Your task to perform on an android device: delete a single message in the gmail app Image 0: 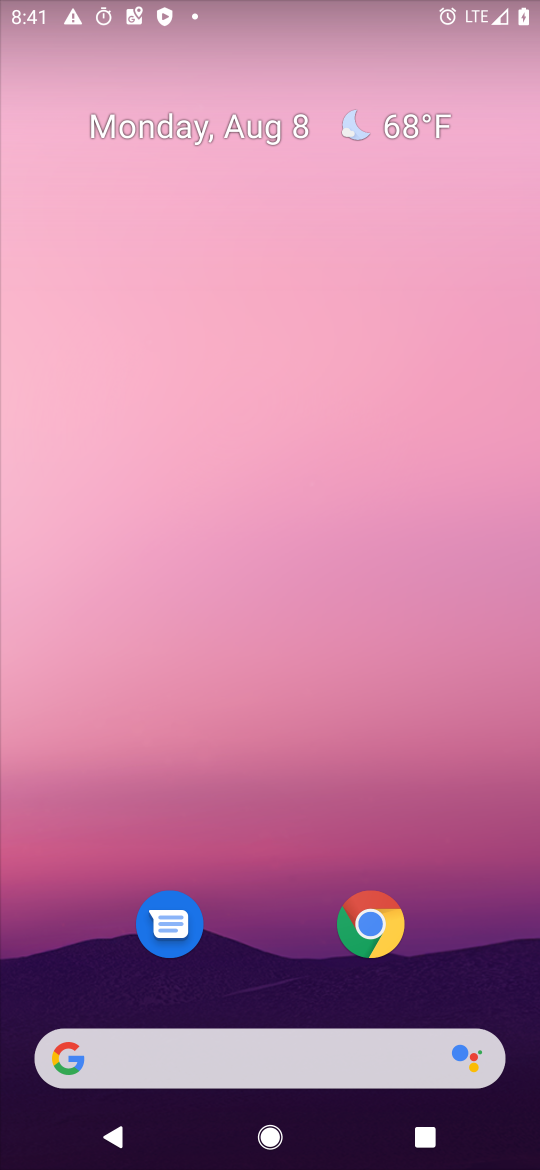
Step 0: drag from (165, 866) to (153, 1168)
Your task to perform on an android device: delete a single message in the gmail app Image 1: 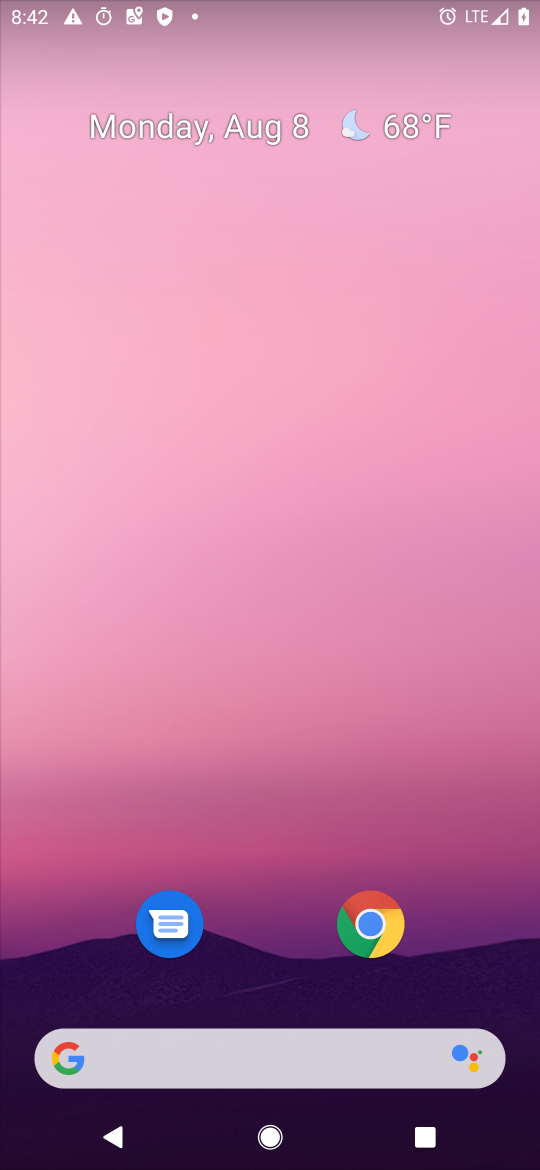
Step 1: drag from (276, 983) to (262, 864)
Your task to perform on an android device: delete a single message in the gmail app Image 2: 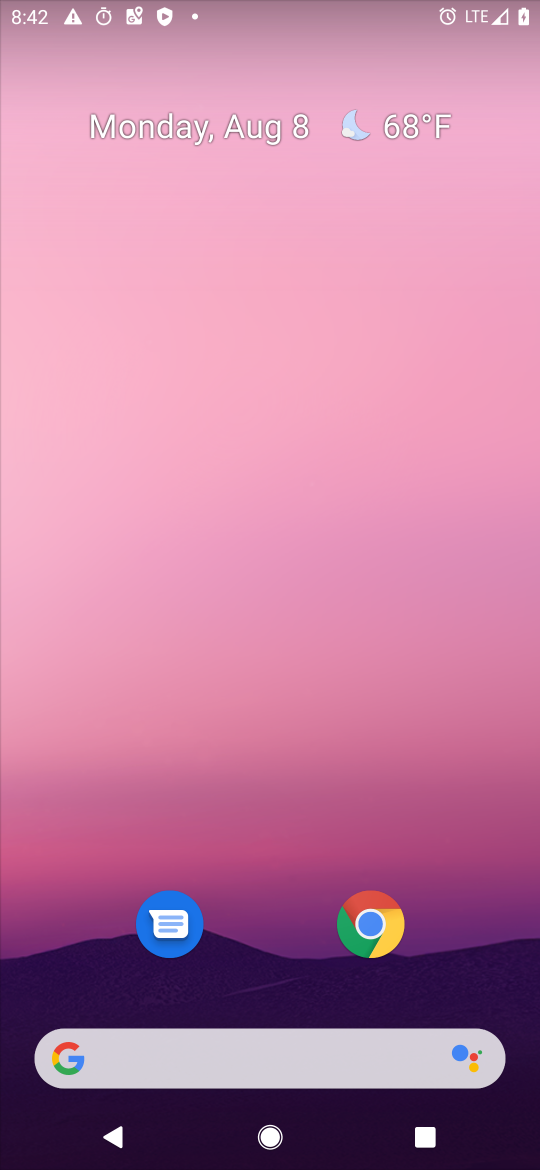
Step 2: drag from (238, 994) to (204, 205)
Your task to perform on an android device: delete a single message in the gmail app Image 3: 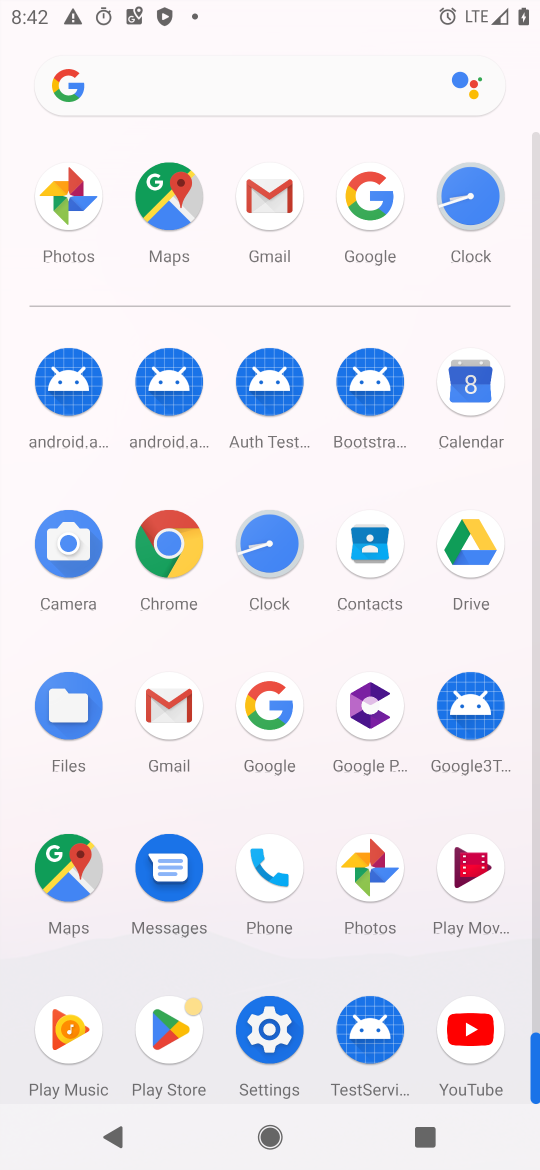
Step 3: click (156, 788)
Your task to perform on an android device: delete a single message in the gmail app Image 4: 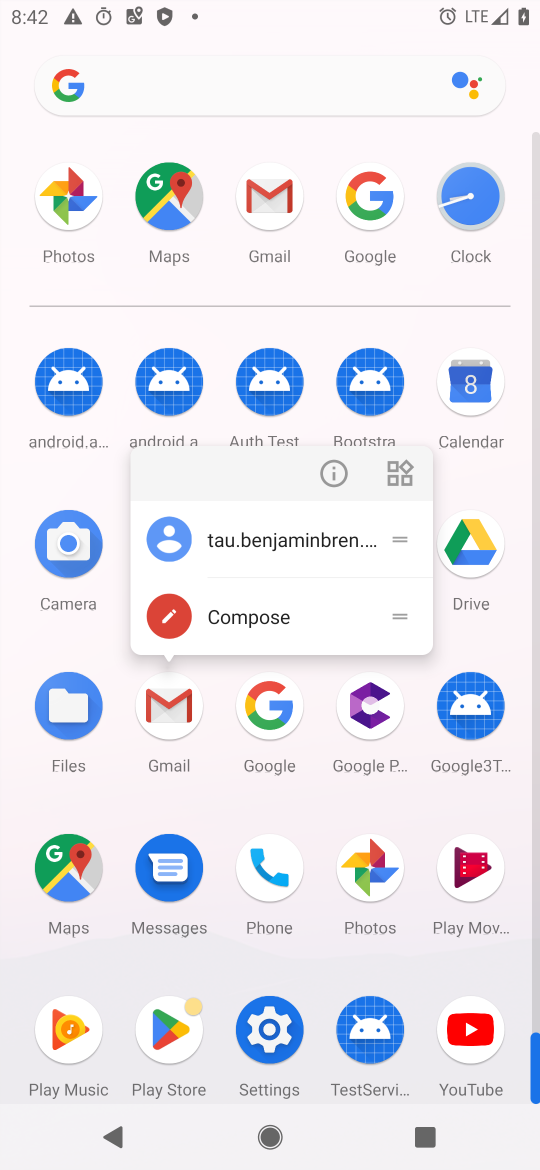
Step 4: click (320, 458)
Your task to perform on an android device: delete a single message in the gmail app Image 5: 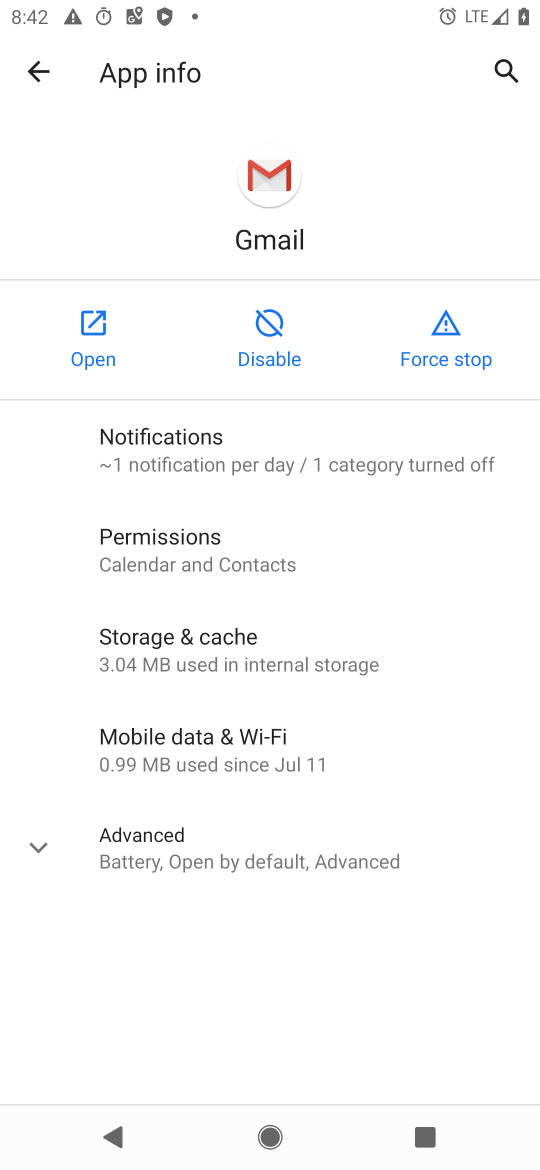
Step 5: click (87, 299)
Your task to perform on an android device: delete a single message in the gmail app Image 6: 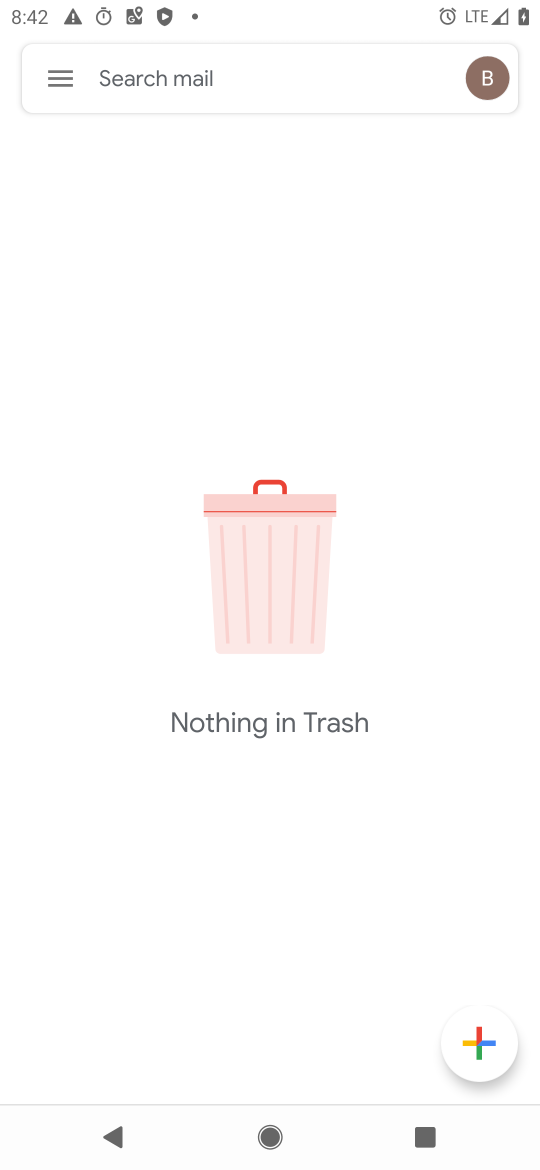
Step 6: click (70, 76)
Your task to perform on an android device: delete a single message in the gmail app Image 7: 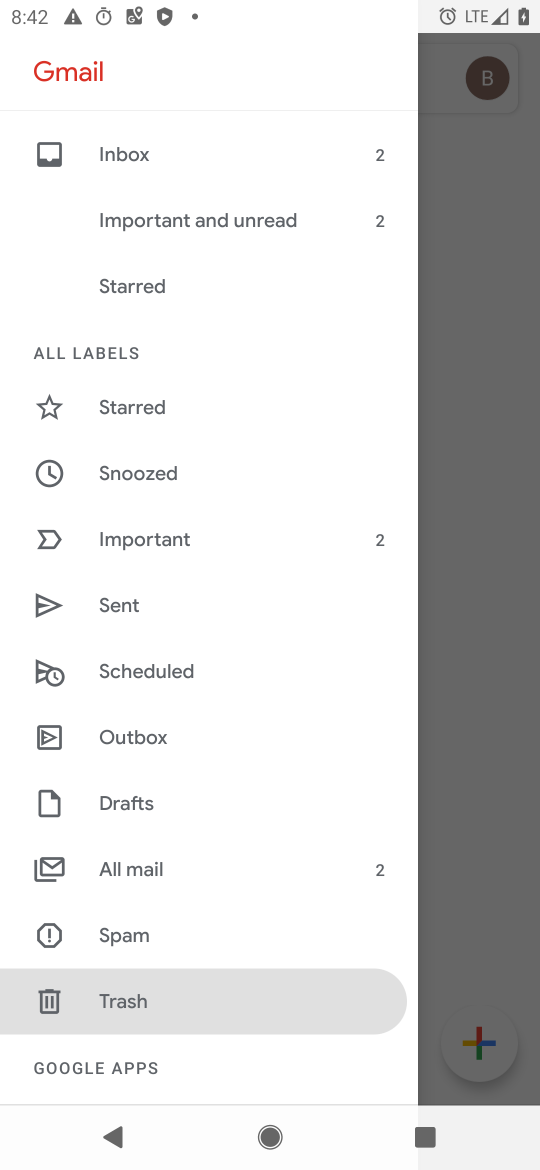
Step 7: click (222, 1000)
Your task to perform on an android device: delete a single message in the gmail app Image 8: 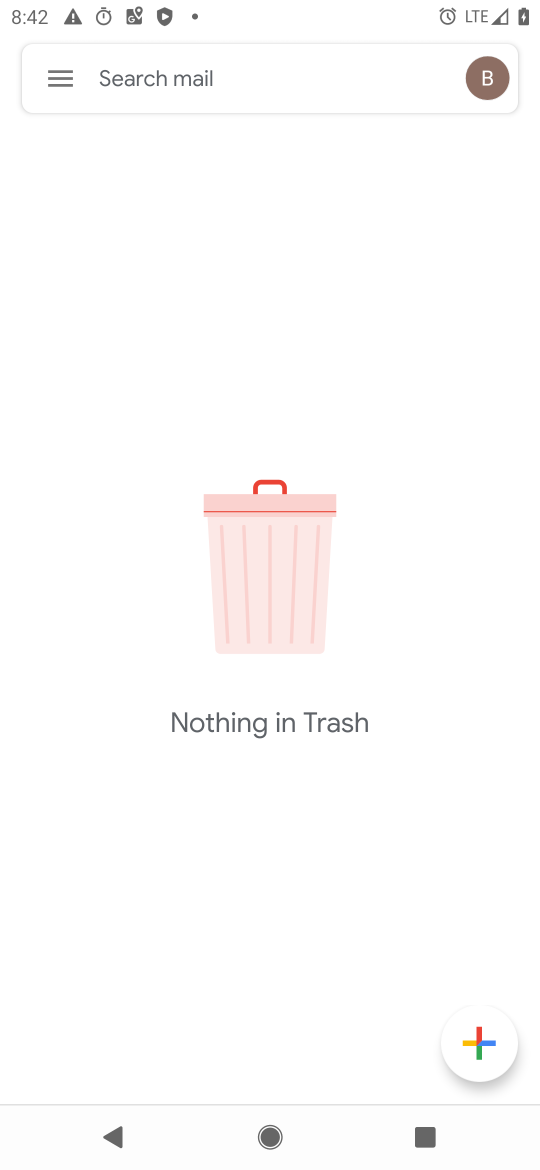
Step 8: click (60, 68)
Your task to perform on an android device: delete a single message in the gmail app Image 9: 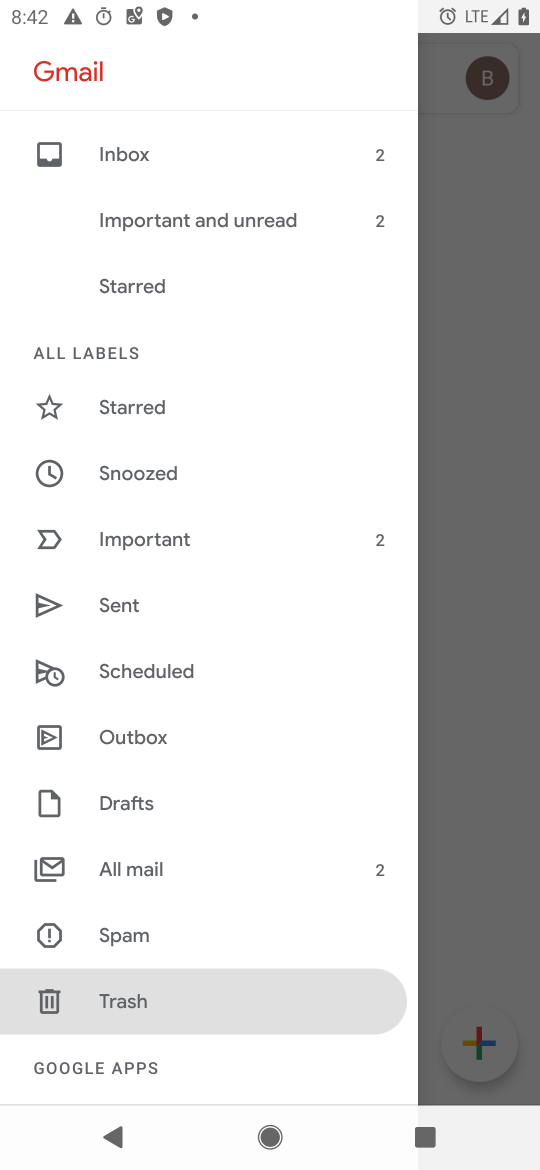
Step 9: click (182, 146)
Your task to perform on an android device: delete a single message in the gmail app Image 10: 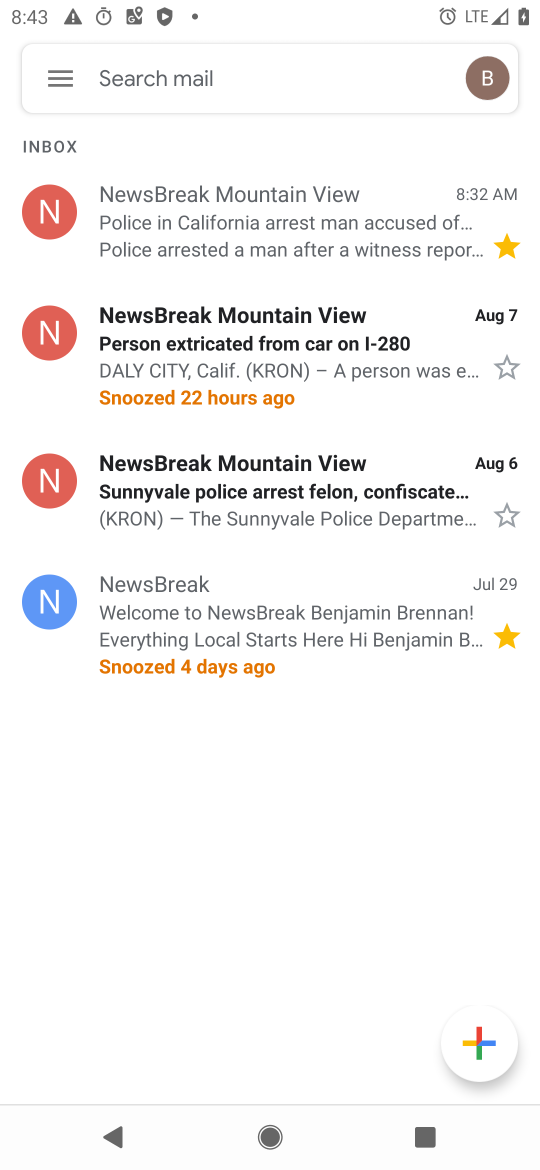
Step 10: click (299, 223)
Your task to perform on an android device: delete a single message in the gmail app Image 11: 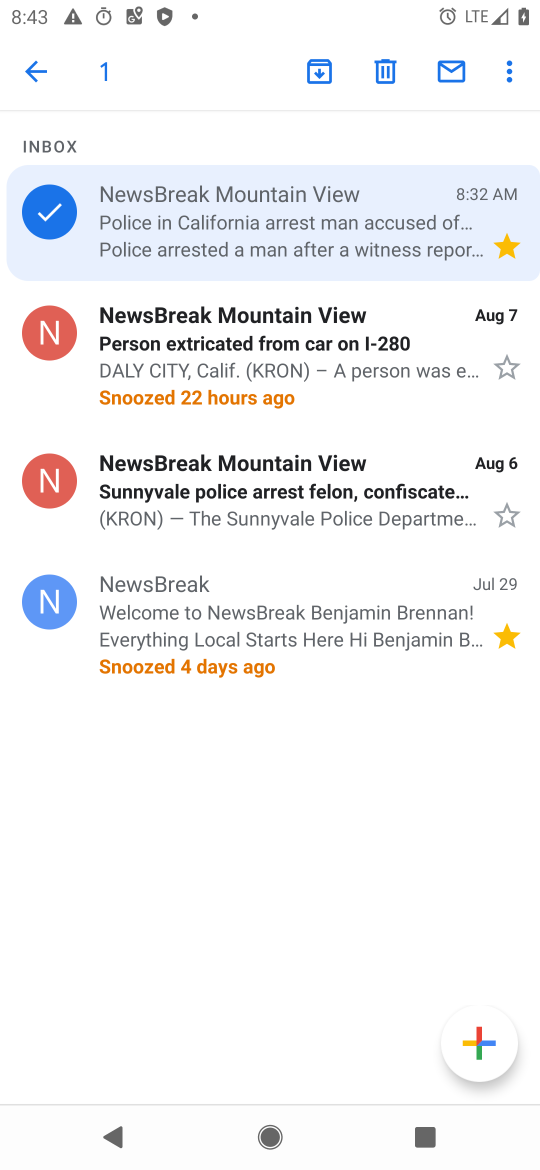
Step 11: click (383, 64)
Your task to perform on an android device: delete a single message in the gmail app Image 12: 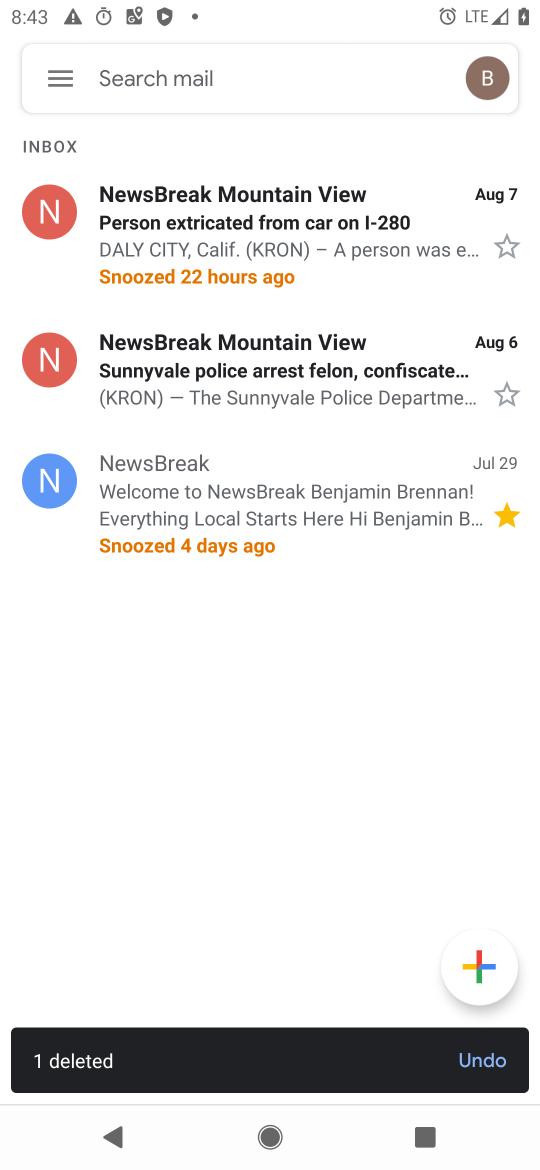
Step 12: task complete